Your task to perform on an android device: Open privacy settings Image 0: 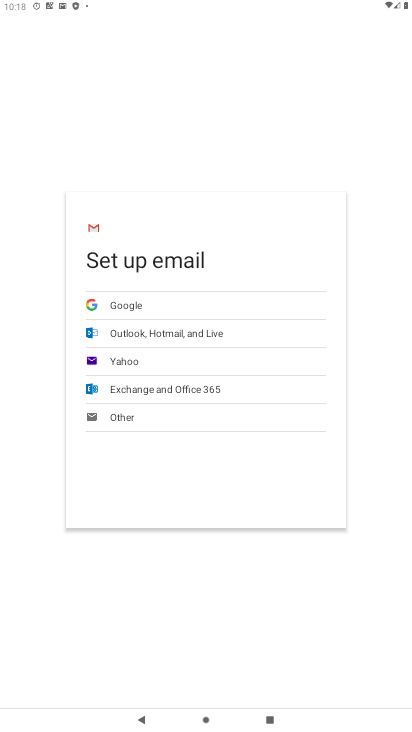
Step 0: press home button
Your task to perform on an android device: Open privacy settings Image 1: 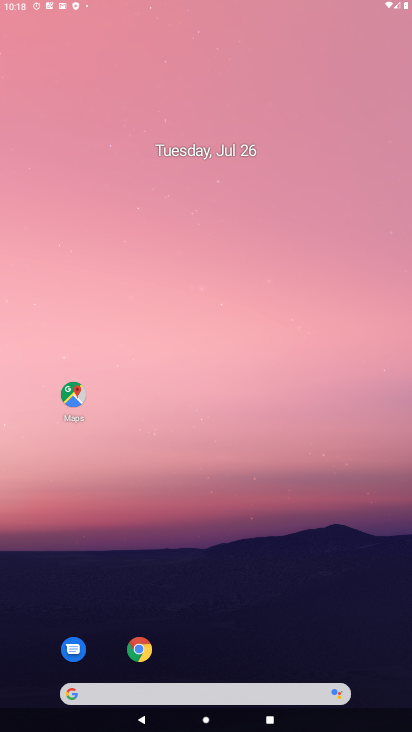
Step 1: drag from (221, 407) to (306, 35)
Your task to perform on an android device: Open privacy settings Image 2: 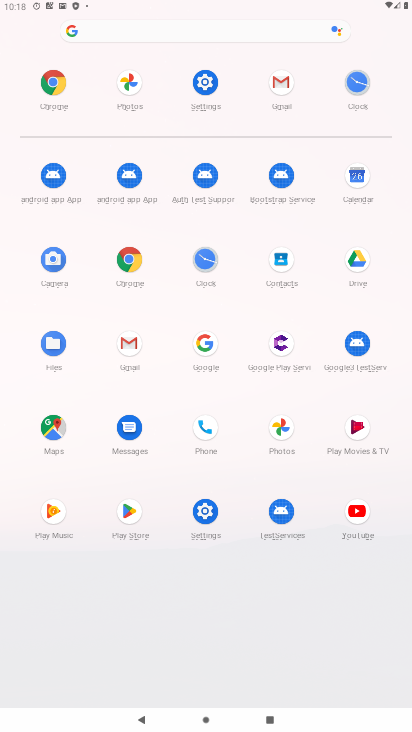
Step 2: drag from (200, 635) to (278, 234)
Your task to perform on an android device: Open privacy settings Image 3: 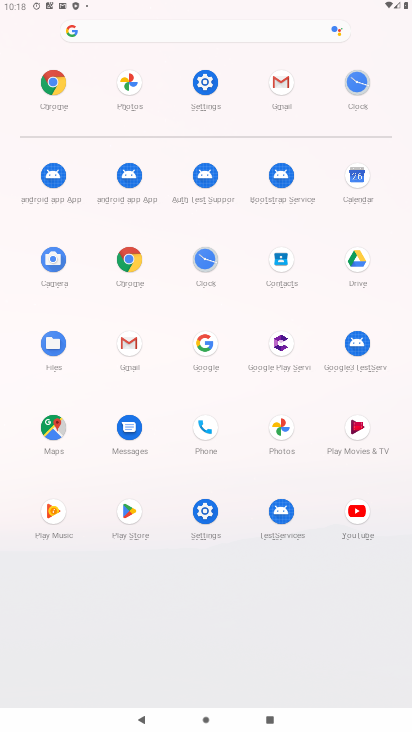
Step 3: click (197, 77)
Your task to perform on an android device: Open privacy settings Image 4: 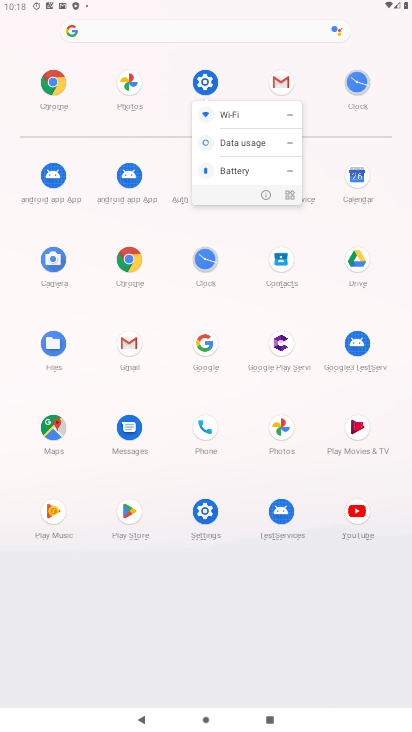
Step 4: click (265, 188)
Your task to perform on an android device: Open privacy settings Image 5: 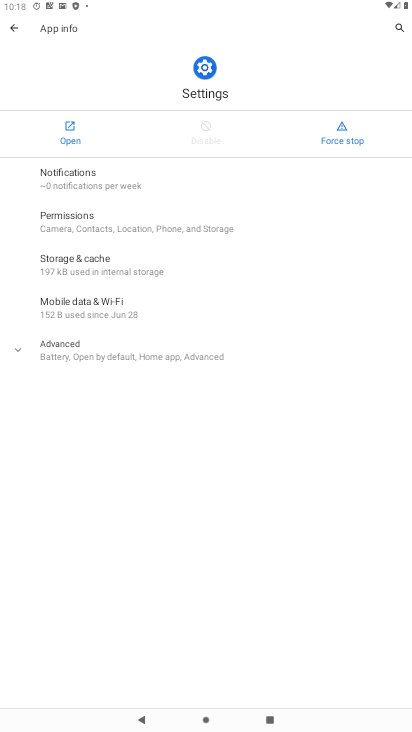
Step 5: click (80, 136)
Your task to perform on an android device: Open privacy settings Image 6: 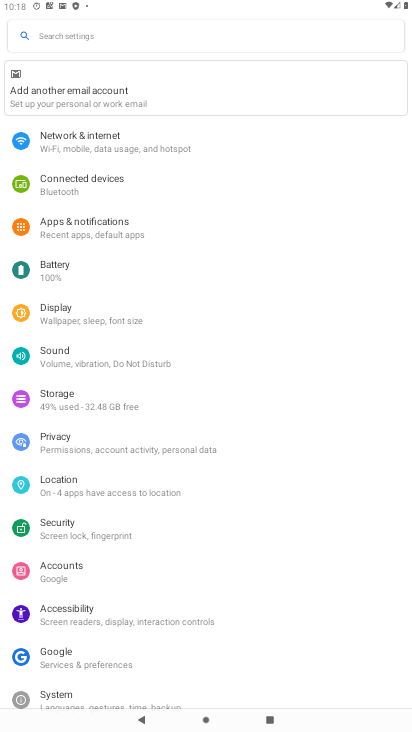
Step 6: click (61, 437)
Your task to perform on an android device: Open privacy settings Image 7: 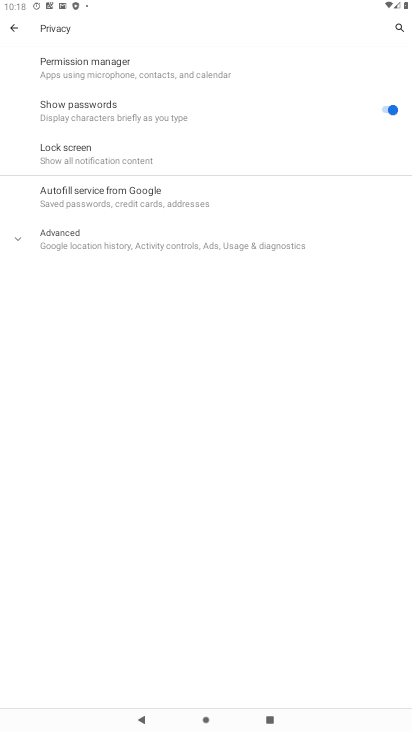
Step 7: drag from (138, 615) to (137, 336)
Your task to perform on an android device: Open privacy settings Image 8: 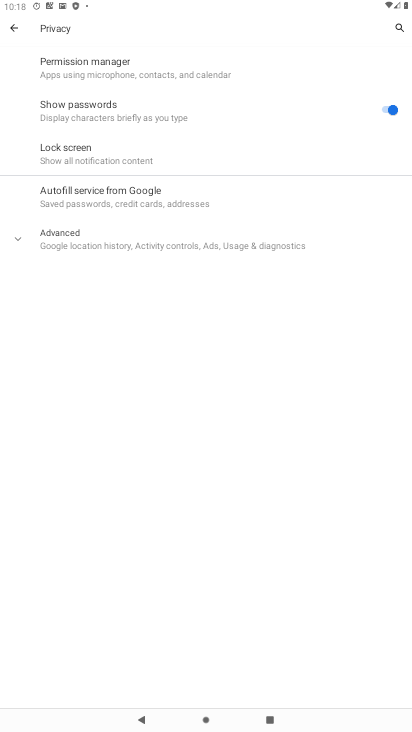
Step 8: click (111, 244)
Your task to perform on an android device: Open privacy settings Image 9: 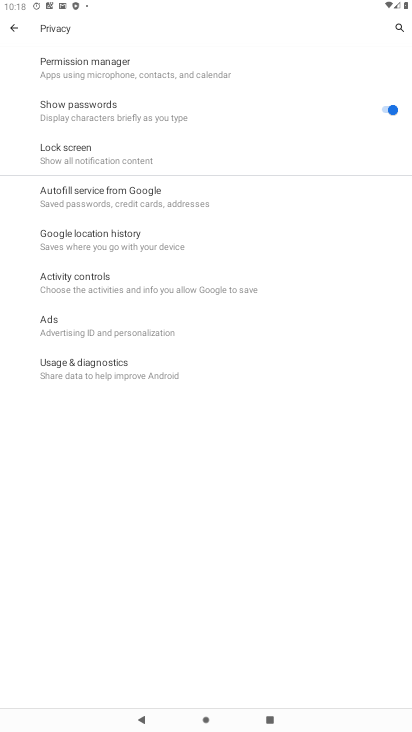
Step 9: task complete